Your task to perform on an android device: add a contact Image 0: 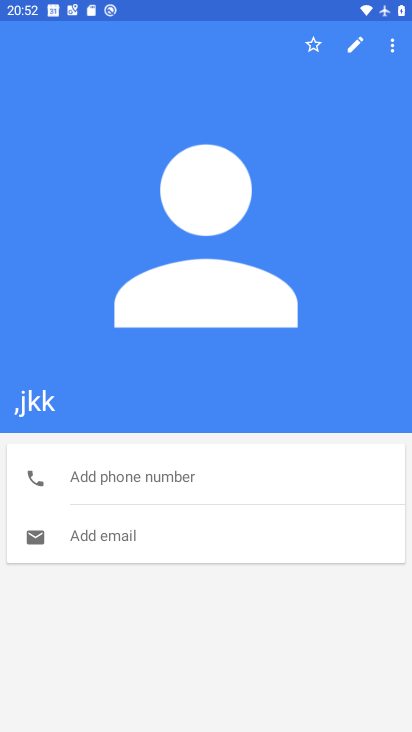
Step 0: press back button
Your task to perform on an android device: add a contact Image 1: 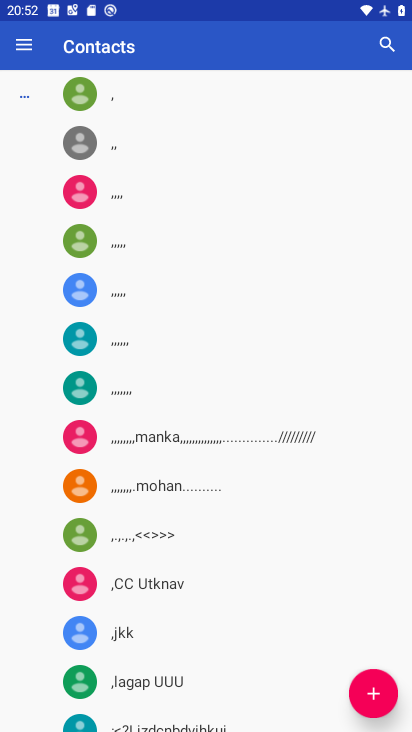
Step 1: click (362, 699)
Your task to perform on an android device: add a contact Image 2: 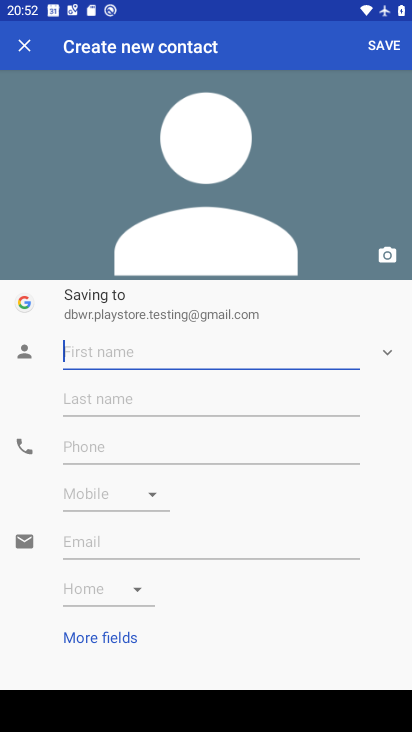
Step 2: click (139, 359)
Your task to perform on an android device: add a contact Image 3: 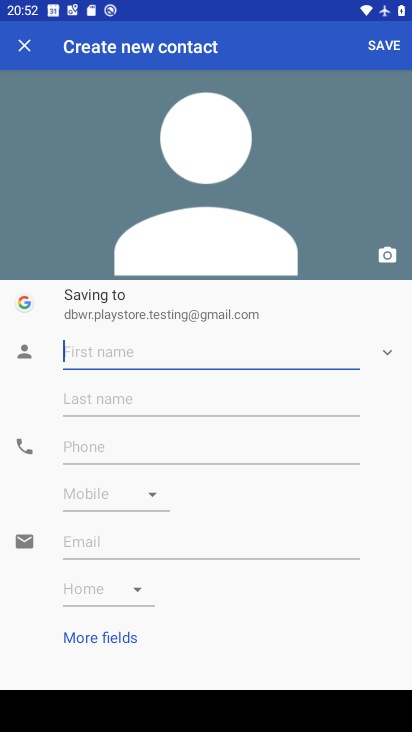
Step 3: type "contact 3"
Your task to perform on an android device: add a contact Image 4: 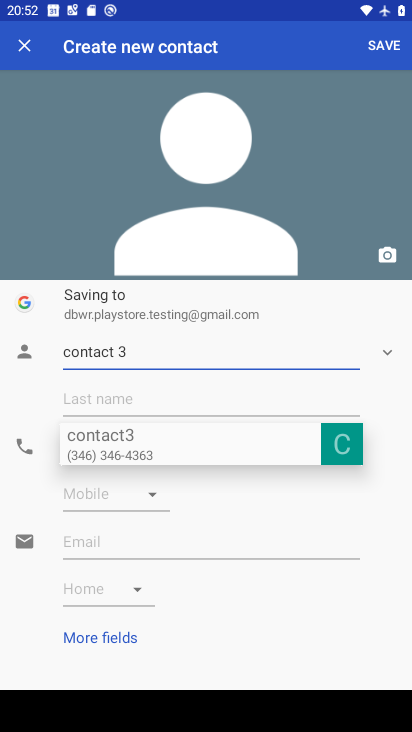
Step 4: type "1"
Your task to perform on an android device: add a contact Image 5: 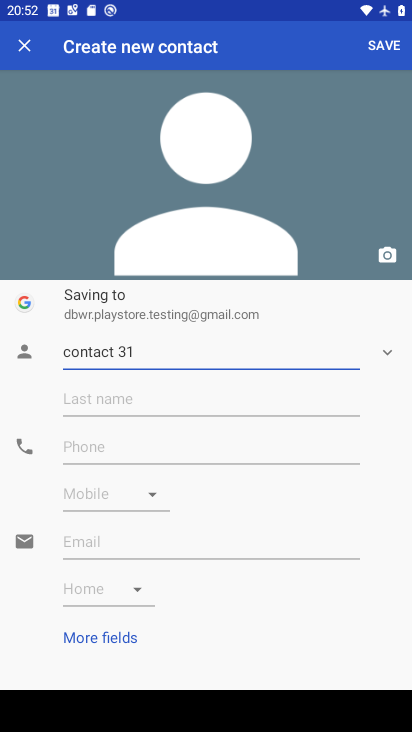
Step 5: click (154, 447)
Your task to perform on an android device: add a contact Image 6: 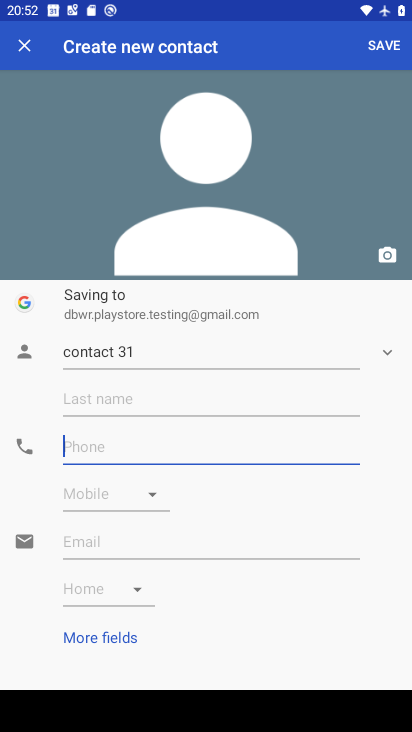
Step 6: type ""
Your task to perform on an android device: add a contact Image 7: 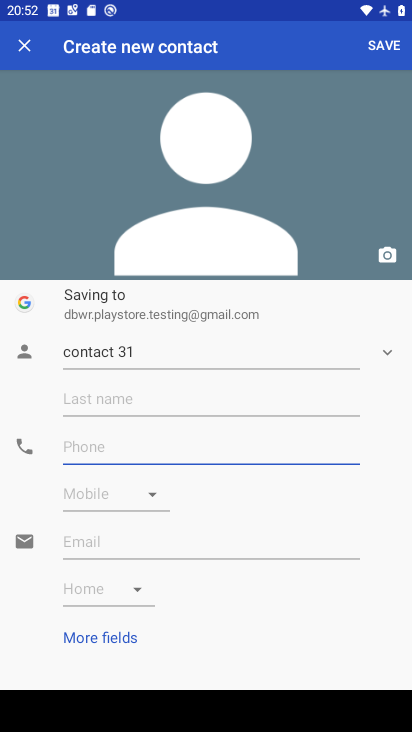
Step 7: type "546554534"
Your task to perform on an android device: add a contact Image 8: 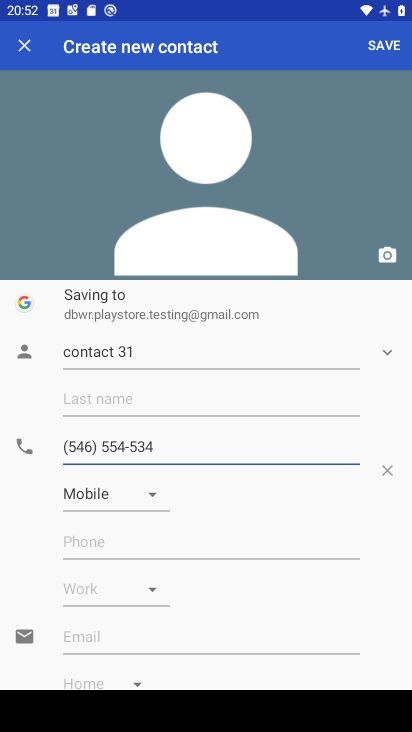
Step 8: click (385, 50)
Your task to perform on an android device: add a contact Image 9: 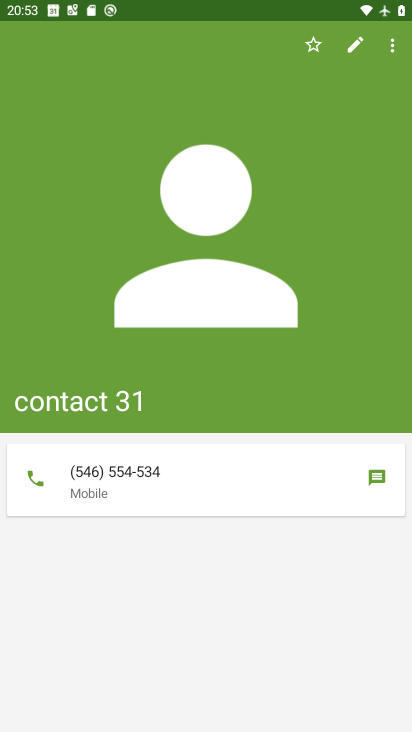
Step 9: task complete